Your task to perform on an android device: install app "LinkedIn" Image 0: 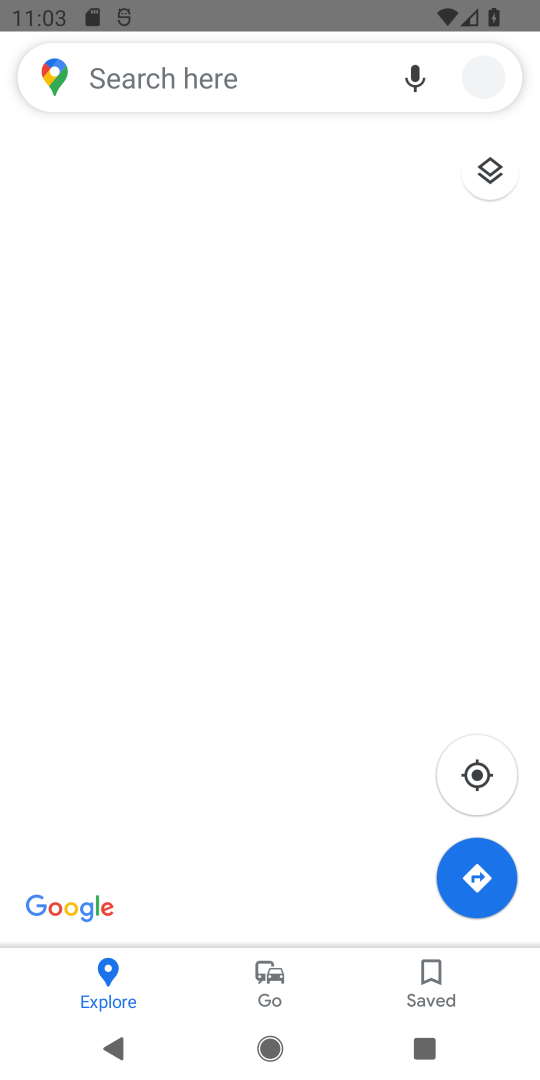
Step 0: press home button
Your task to perform on an android device: install app "LinkedIn" Image 1: 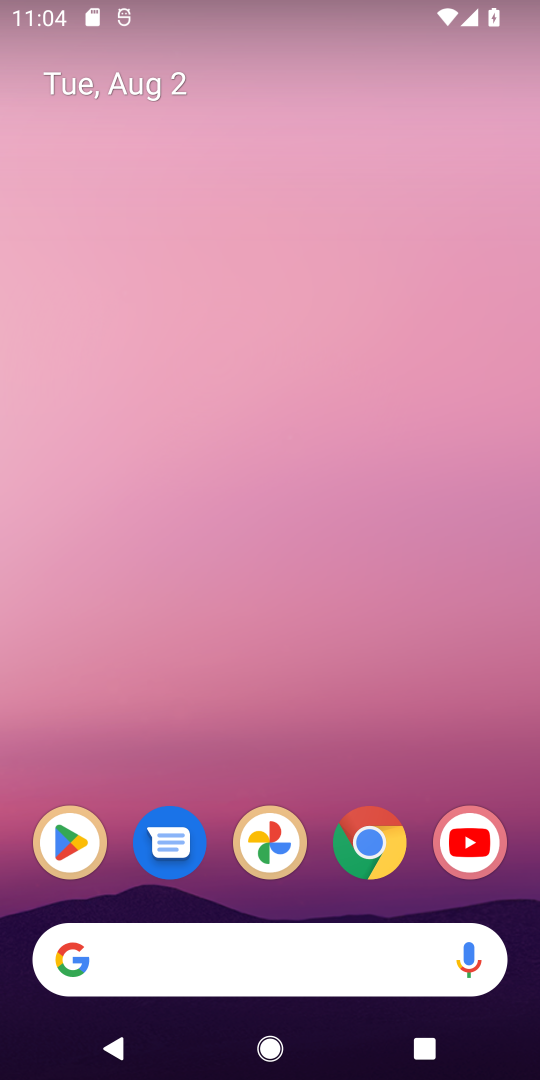
Step 1: click (84, 852)
Your task to perform on an android device: install app "LinkedIn" Image 2: 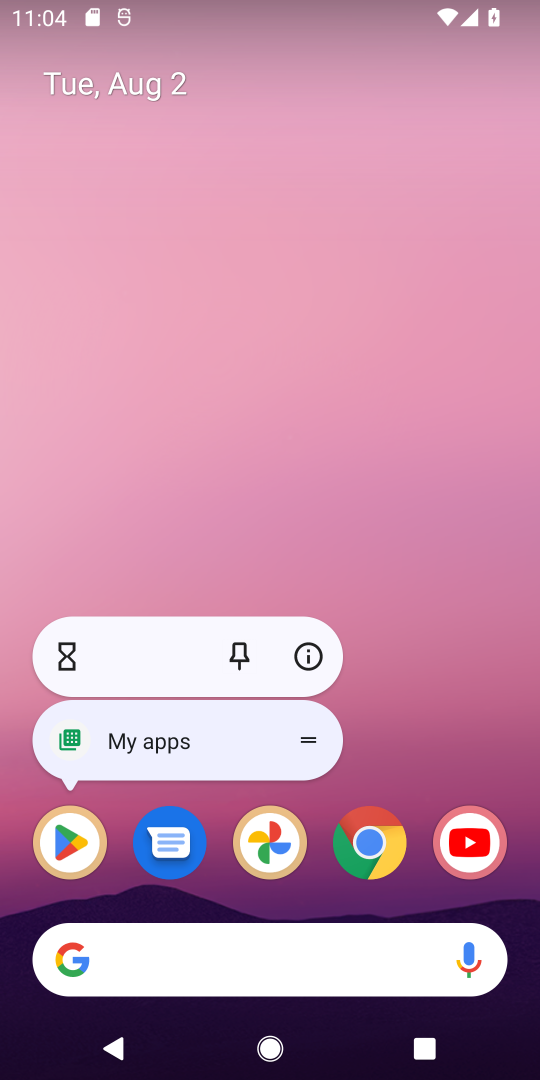
Step 2: click (84, 852)
Your task to perform on an android device: install app "LinkedIn" Image 3: 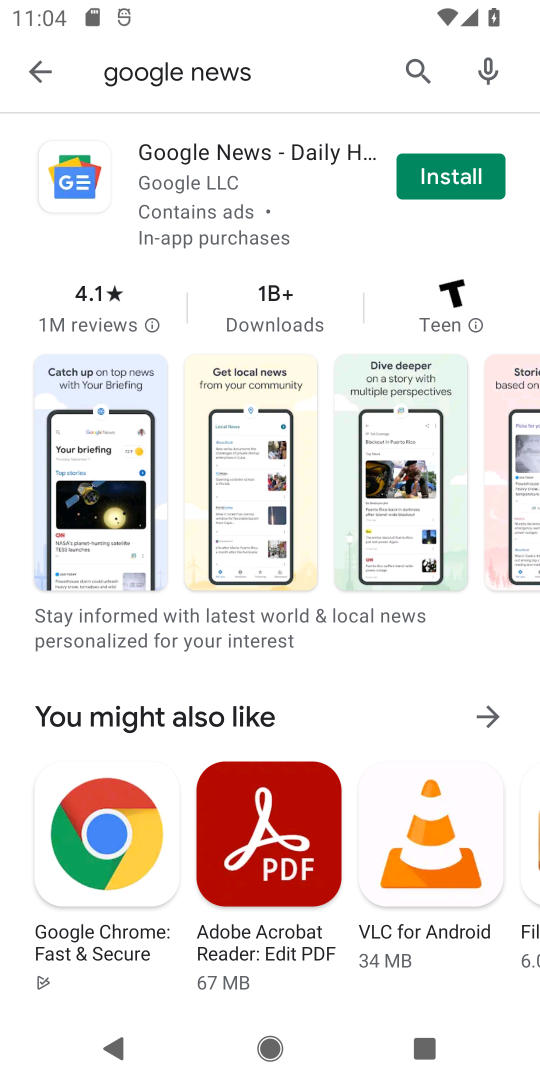
Step 3: click (394, 59)
Your task to perform on an android device: install app "LinkedIn" Image 4: 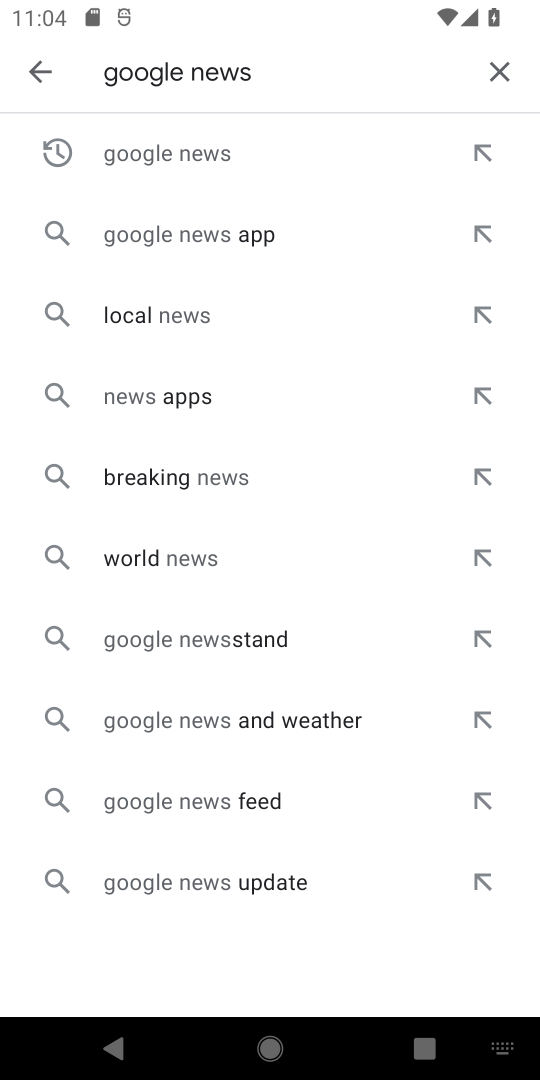
Step 4: click (500, 67)
Your task to perform on an android device: install app "LinkedIn" Image 5: 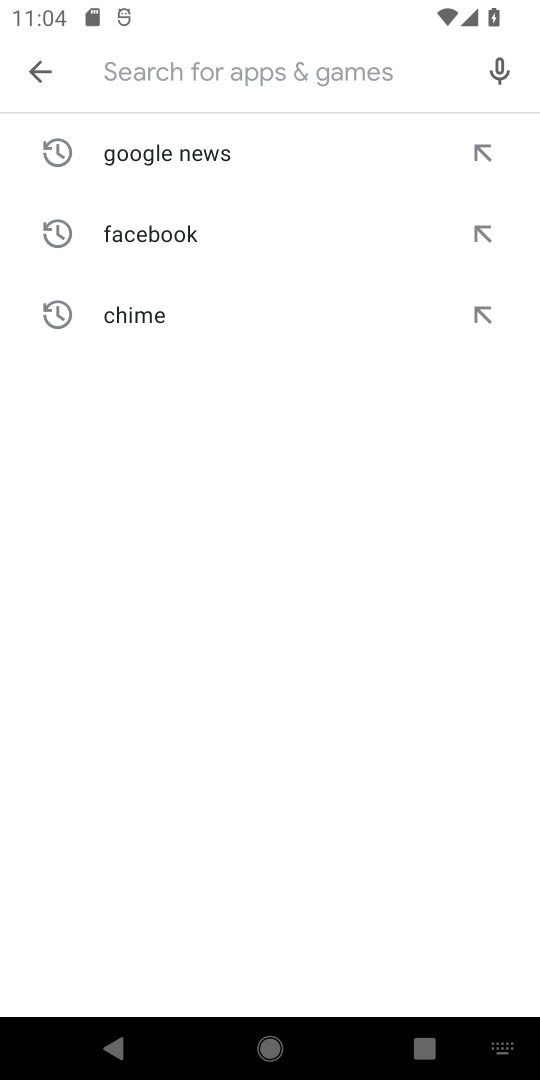
Step 5: type "LinkedIn"
Your task to perform on an android device: install app "LinkedIn" Image 6: 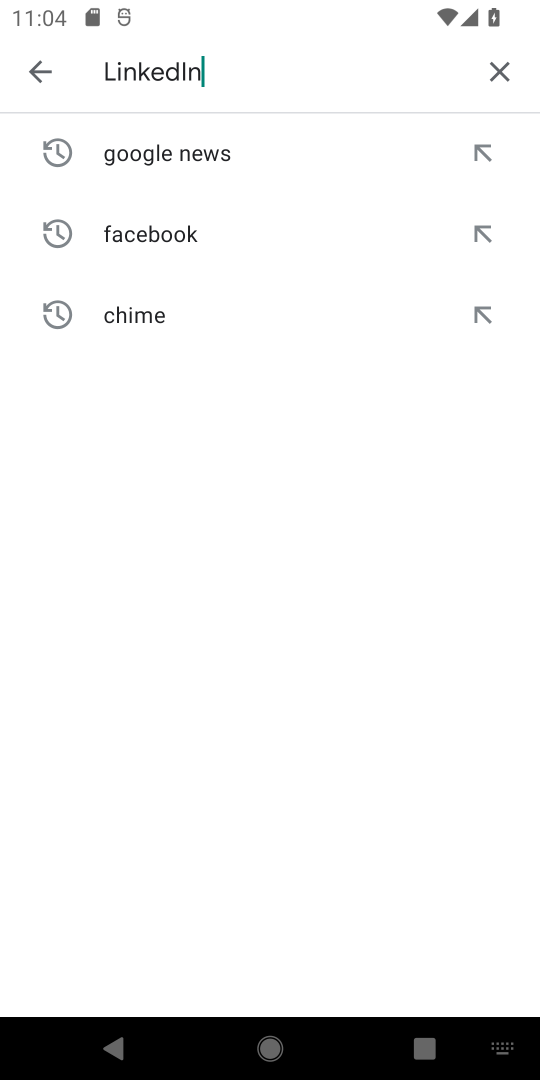
Step 6: type ""
Your task to perform on an android device: install app "LinkedIn" Image 7: 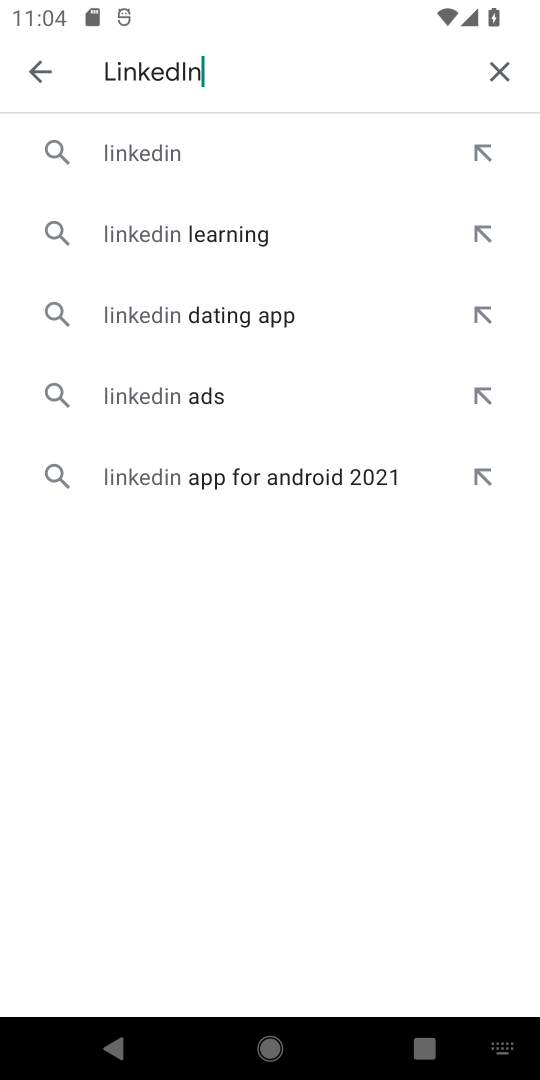
Step 7: click (142, 151)
Your task to perform on an android device: install app "LinkedIn" Image 8: 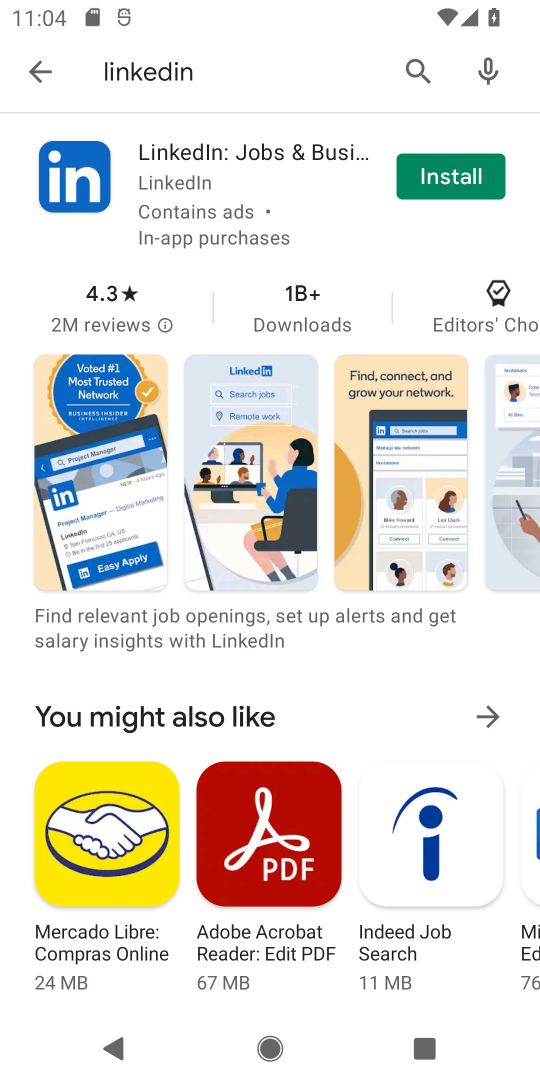
Step 8: click (470, 172)
Your task to perform on an android device: install app "LinkedIn" Image 9: 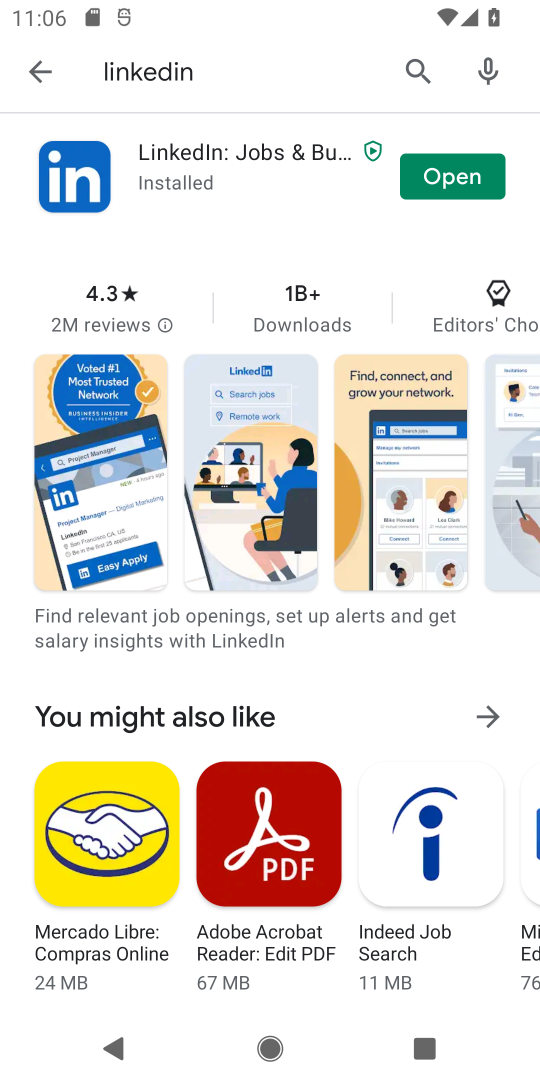
Step 9: task complete